Your task to perform on an android device: change the clock style Image 0: 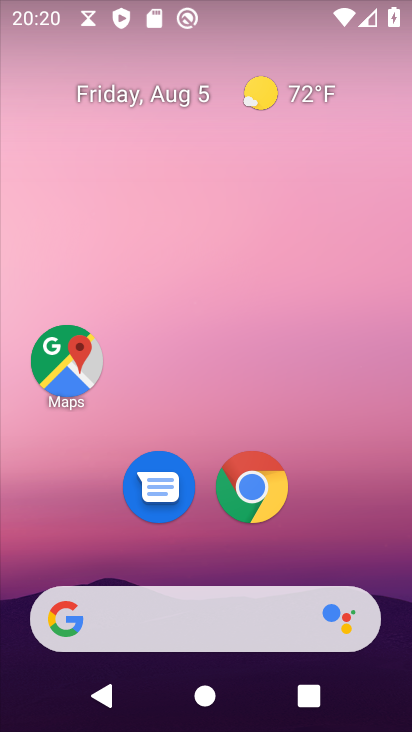
Step 0: drag from (207, 581) to (278, 26)
Your task to perform on an android device: change the clock style Image 1: 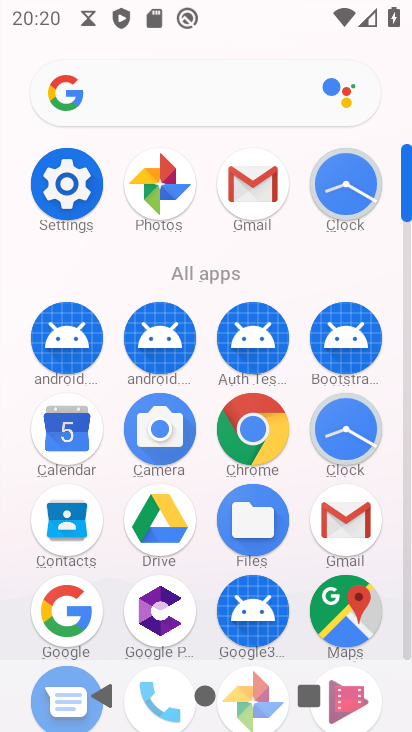
Step 1: click (340, 186)
Your task to perform on an android device: change the clock style Image 2: 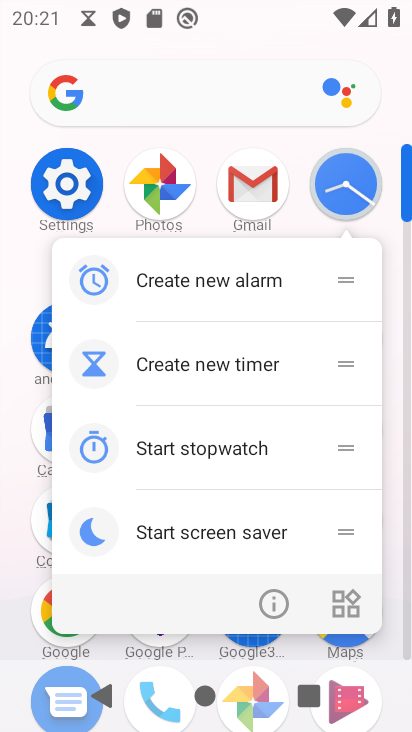
Step 2: click (351, 194)
Your task to perform on an android device: change the clock style Image 3: 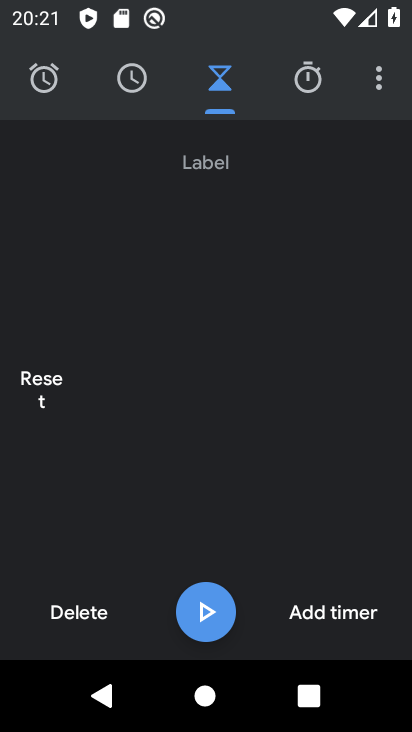
Step 3: click (378, 85)
Your task to perform on an android device: change the clock style Image 4: 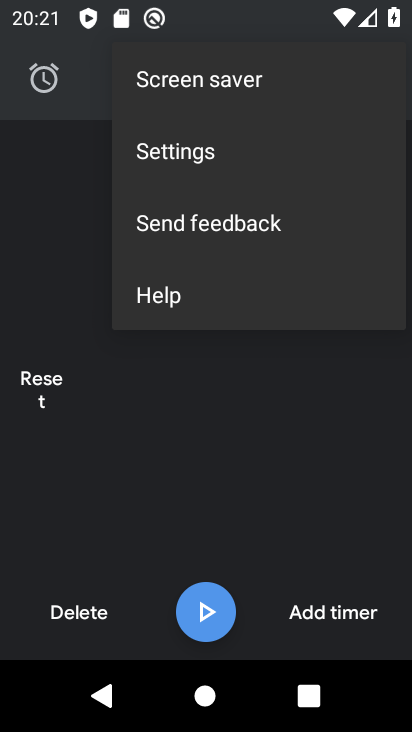
Step 4: click (213, 153)
Your task to perform on an android device: change the clock style Image 5: 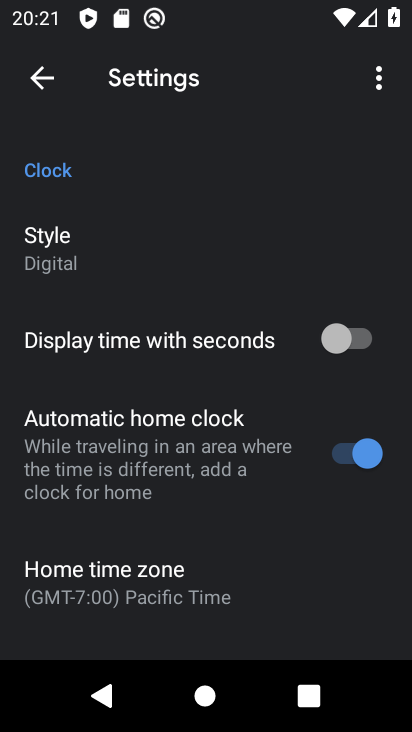
Step 5: click (38, 245)
Your task to perform on an android device: change the clock style Image 6: 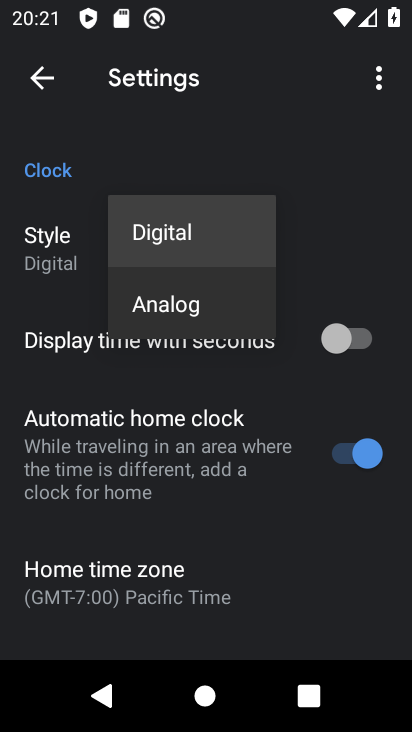
Step 6: click (154, 307)
Your task to perform on an android device: change the clock style Image 7: 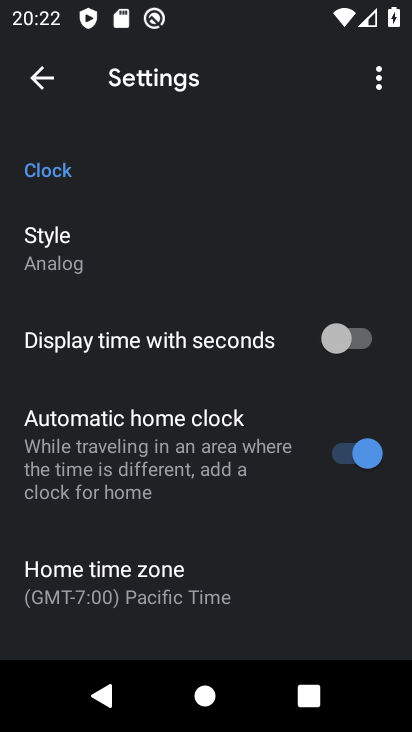
Step 7: task complete